Your task to perform on an android device: Open Youtube and go to the subscriptions tab Image 0: 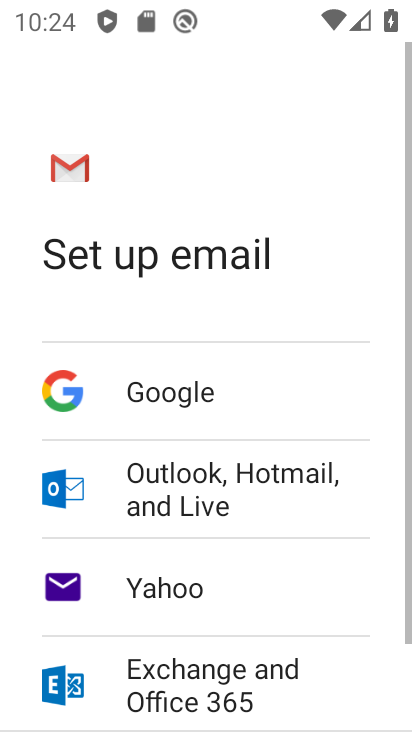
Step 0: press home button
Your task to perform on an android device: Open Youtube and go to the subscriptions tab Image 1: 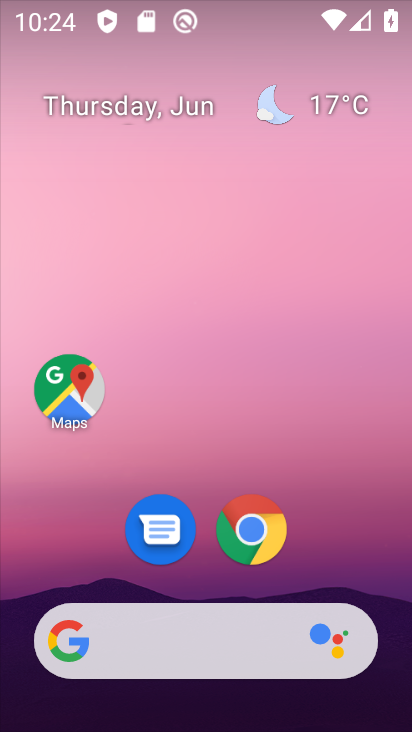
Step 1: drag from (203, 555) to (160, 14)
Your task to perform on an android device: Open Youtube and go to the subscriptions tab Image 2: 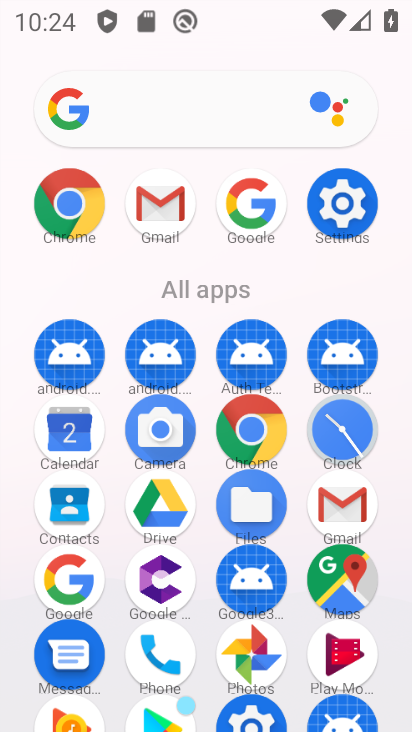
Step 2: drag from (148, 622) to (186, 250)
Your task to perform on an android device: Open Youtube and go to the subscriptions tab Image 3: 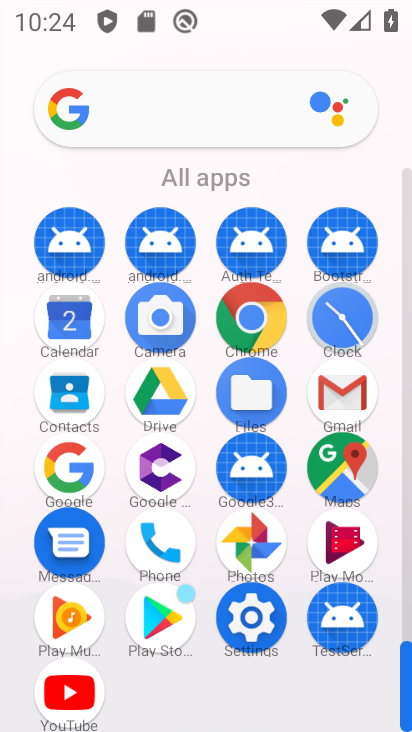
Step 3: click (71, 692)
Your task to perform on an android device: Open Youtube and go to the subscriptions tab Image 4: 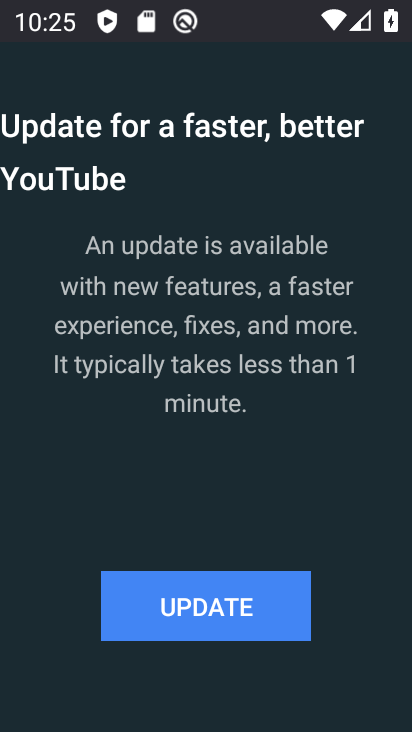
Step 4: click (158, 615)
Your task to perform on an android device: Open Youtube and go to the subscriptions tab Image 5: 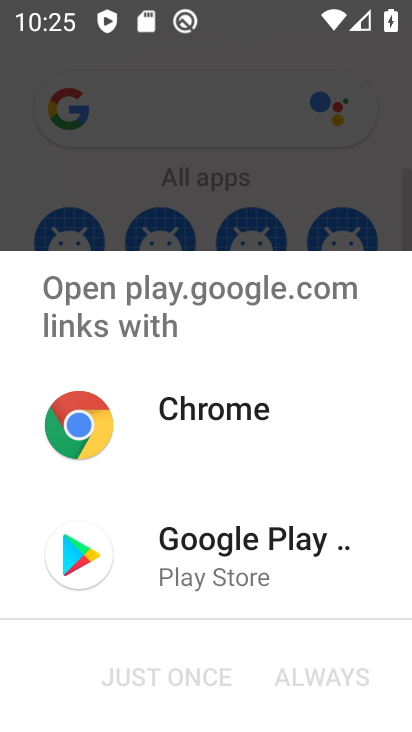
Step 5: click (92, 573)
Your task to perform on an android device: Open Youtube and go to the subscriptions tab Image 6: 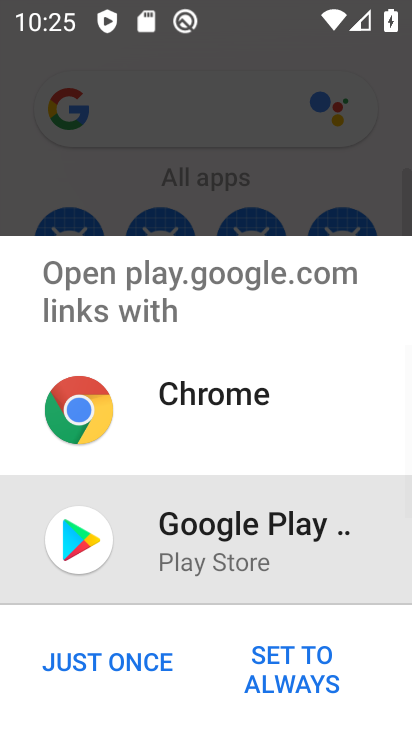
Step 6: click (86, 659)
Your task to perform on an android device: Open Youtube and go to the subscriptions tab Image 7: 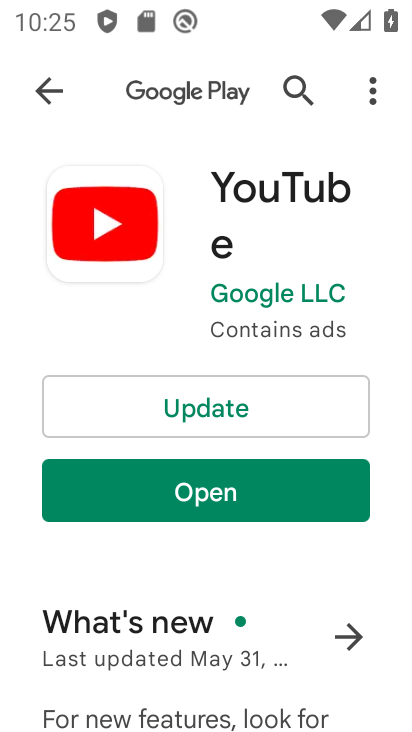
Step 7: click (183, 392)
Your task to perform on an android device: Open Youtube and go to the subscriptions tab Image 8: 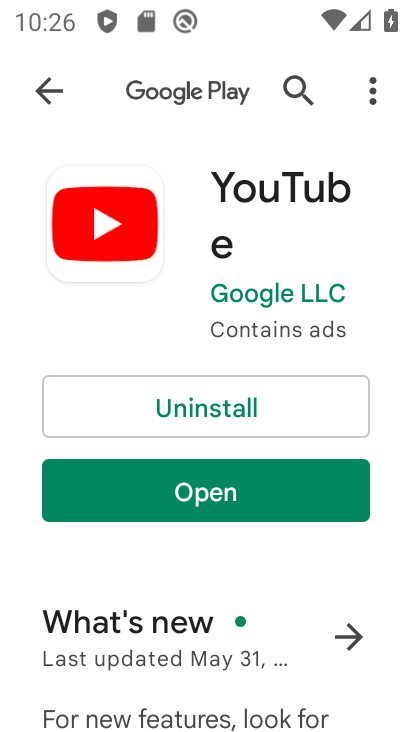
Step 8: click (146, 521)
Your task to perform on an android device: Open Youtube and go to the subscriptions tab Image 9: 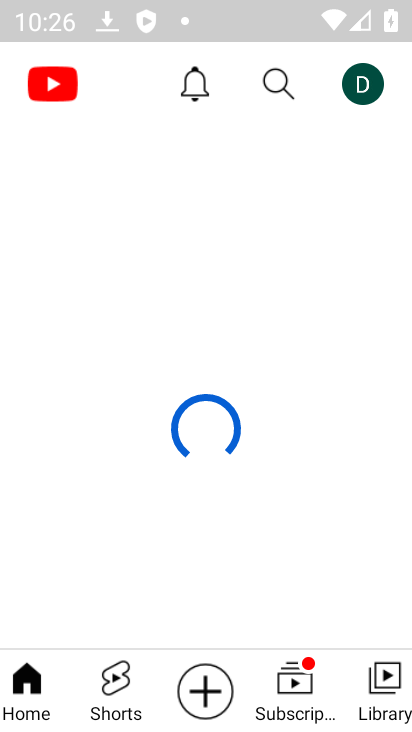
Step 9: click (308, 679)
Your task to perform on an android device: Open Youtube and go to the subscriptions tab Image 10: 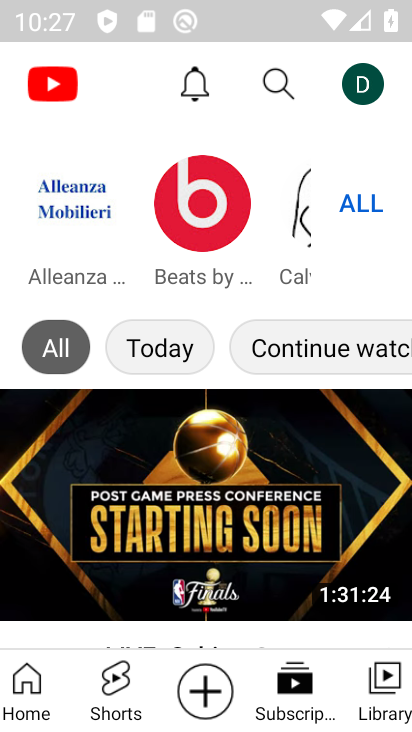
Step 10: task complete